Your task to perform on an android device: Open the stopwatch Image 0: 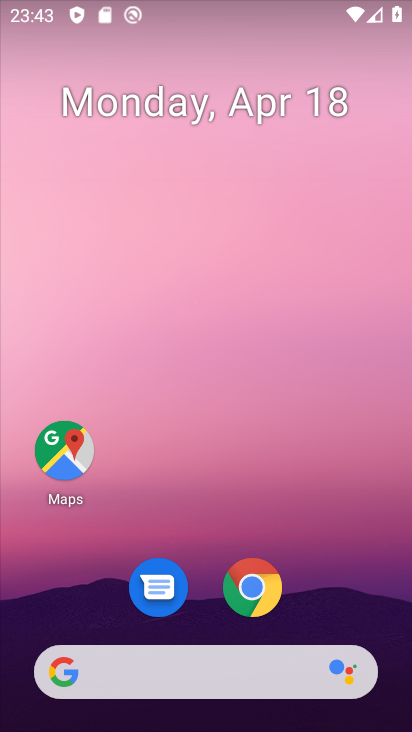
Step 0: drag from (365, 501) to (369, 170)
Your task to perform on an android device: Open the stopwatch Image 1: 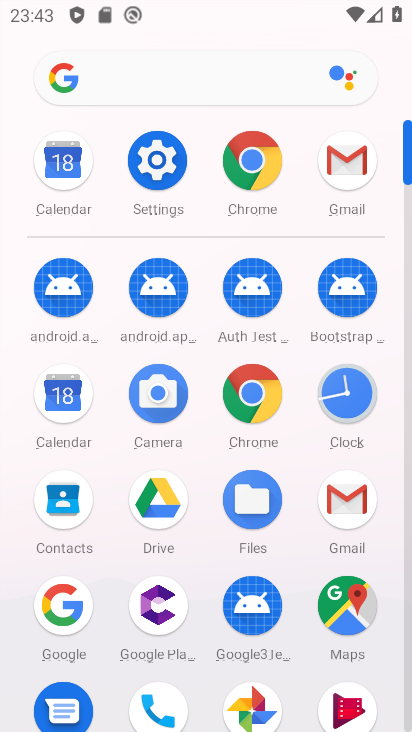
Step 1: click (352, 399)
Your task to perform on an android device: Open the stopwatch Image 2: 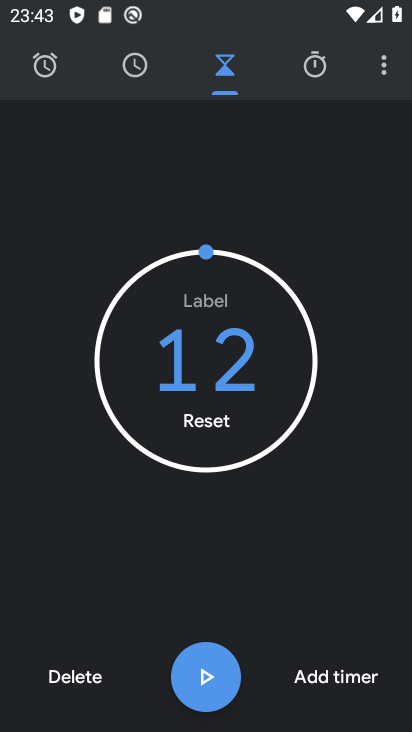
Step 2: click (324, 72)
Your task to perform on an android device: Open the stopwatch Image 3: 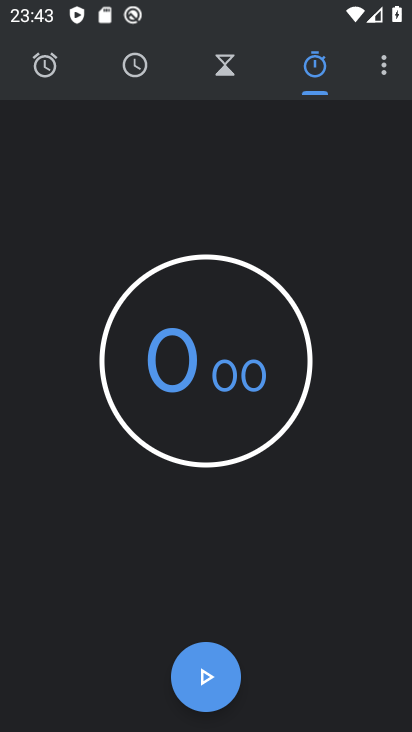
Step 3: click (209, 698)
Your task to perform on an android device: Open the stopwatch Image 4: 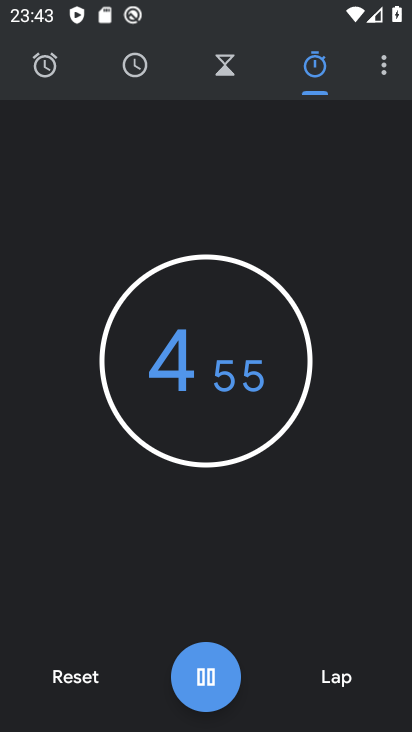
Step 4: click (213, 678)
Your task to perform on an android device: Open the stopwatch Image 5: 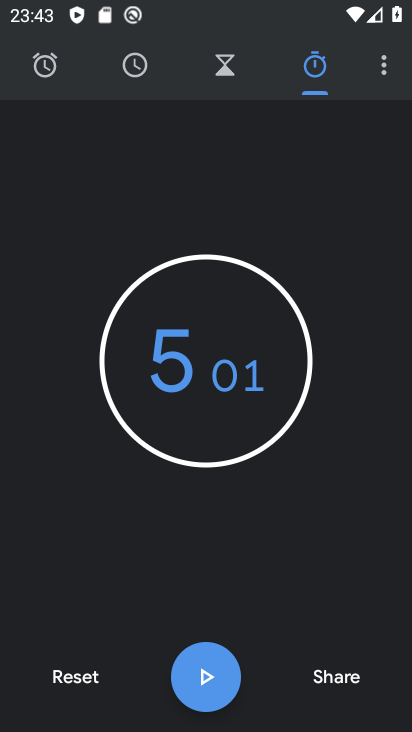
Step 5: task complete